Your task to perform on an android device: View the shopping cart on newegg. Image 0: 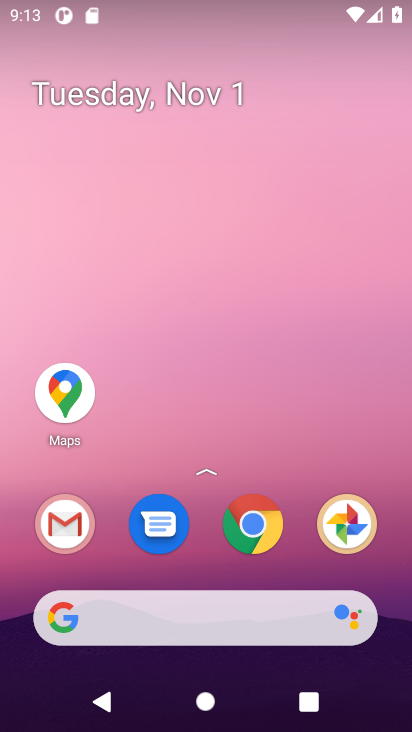
Step 0: press home button
Your task to perform on an android device: View the shopping cart on newegg. Image 1: 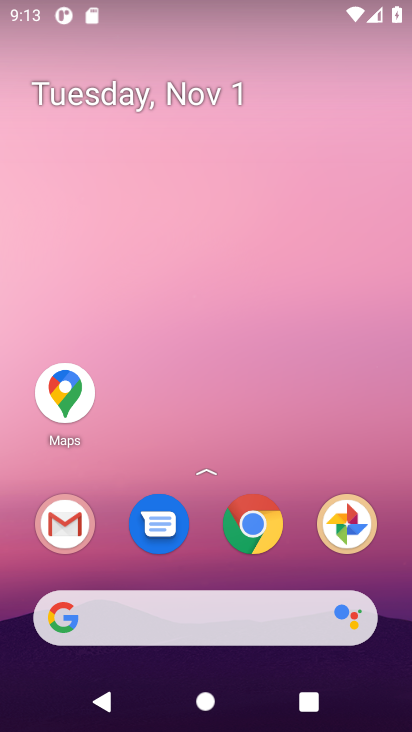
Step 1: click (91, 615)
Your task to perform on an android device: View the shopping cart on newegg. Image 2: 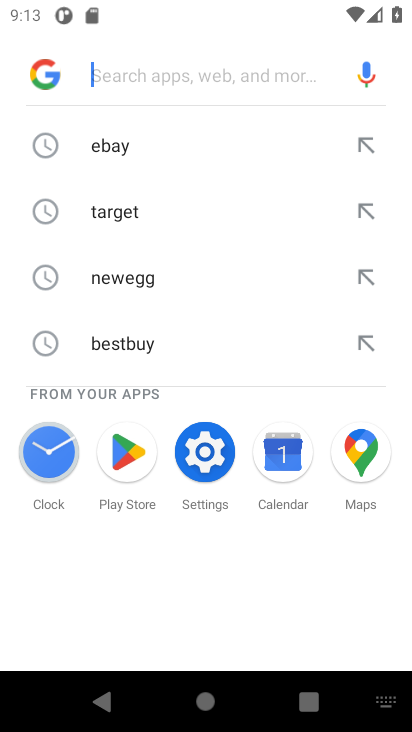
Step 2: type " newegg"
Your task to perform on an android device: View the shopping cart on newegg. Image 3: 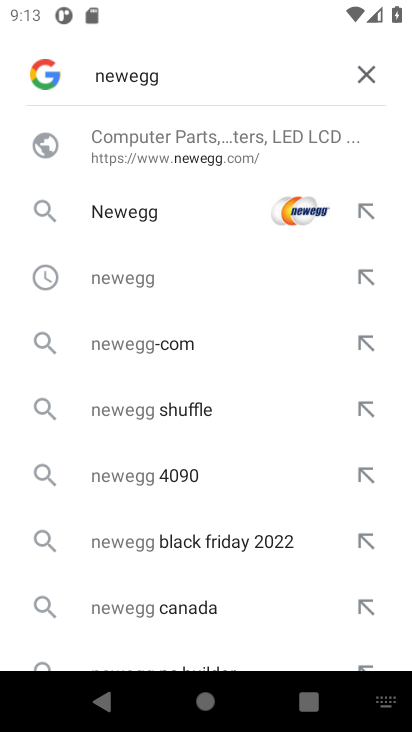
Step 3: press enter
Your task to perform on an android device: View the shopping cart on newegg. Image 4: 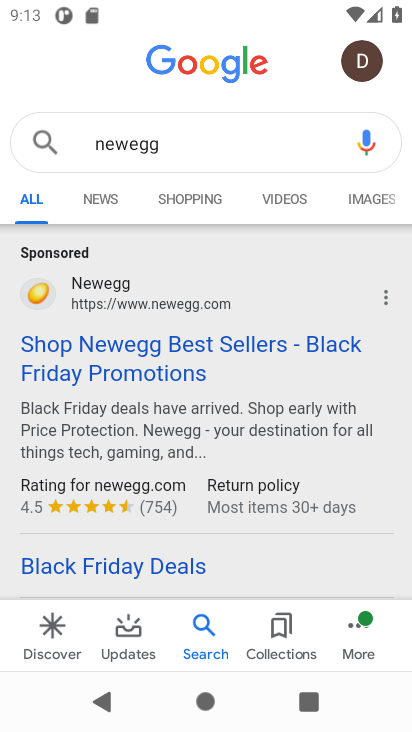
Step 4: click (104, 351)
Your task to perform on an android device: View the shopping cart on newegg. Image 5: 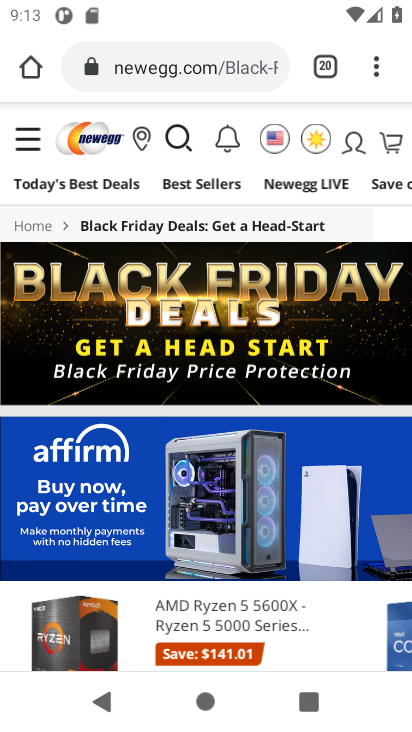
Step 5: click (393, 140)
Your task to perform on an android device: View the shopping cart on newegg. Image 6: 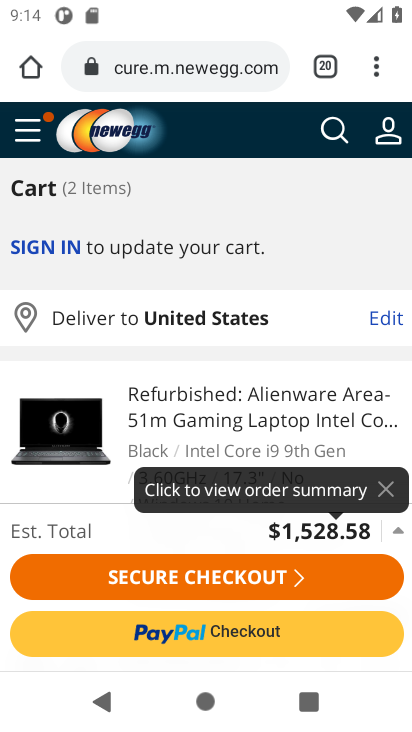
Step 6: task complete